Your task to perform on an android device: empty trash in the gmail app Image 0: 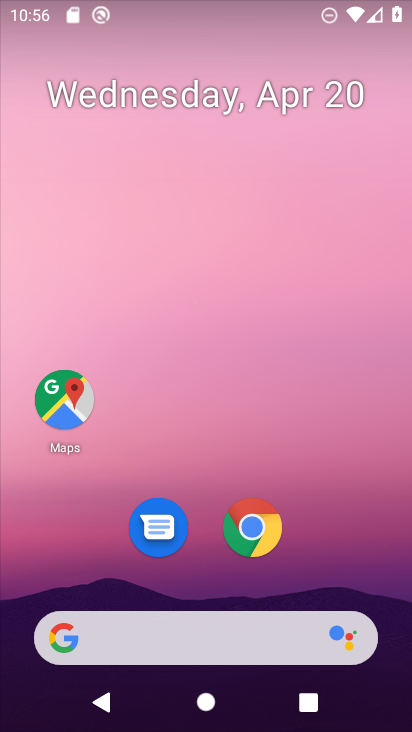
Step 0: drag from (187, 498) to (301, 2)
Your task to perform on an android device: empty trash in the gmail app Image 1: 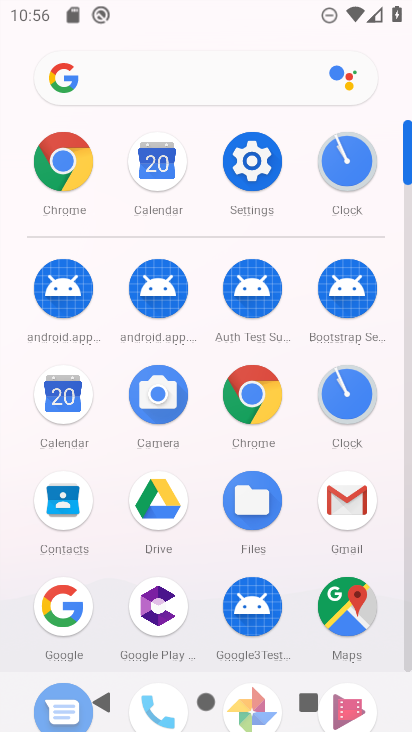
Step 1: click (346, 510)
Your task to perform on an android device: empty trash in the gmail app Image 2: 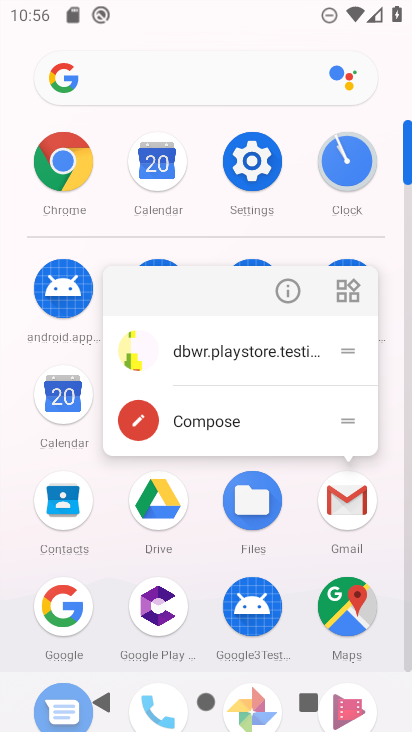
Step 2: click (347, 499)
Your task to perform on an android device: empty trash in the gmail app Image 3: 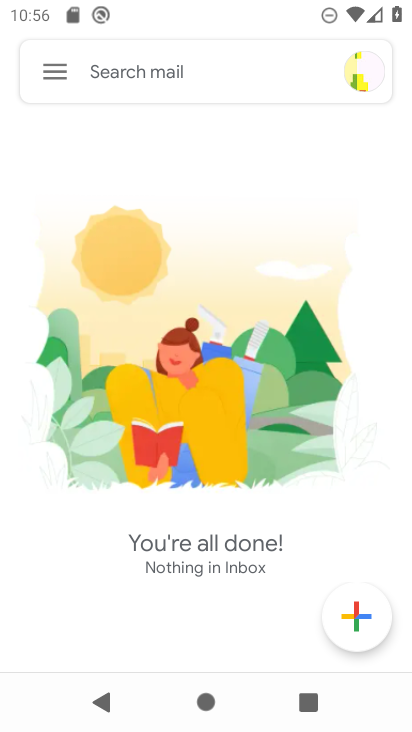
Step 3: click (47, 67)
Your task to perform on an android device: empty trash in the gmail app Image 4: 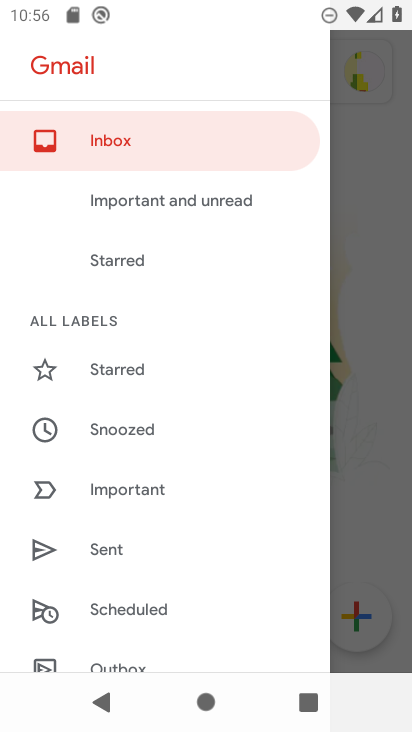
Step 4: drag from (142, 556) to (199, 4)
Your task to perform on an android device: empty trash in the gmail app Image 5: 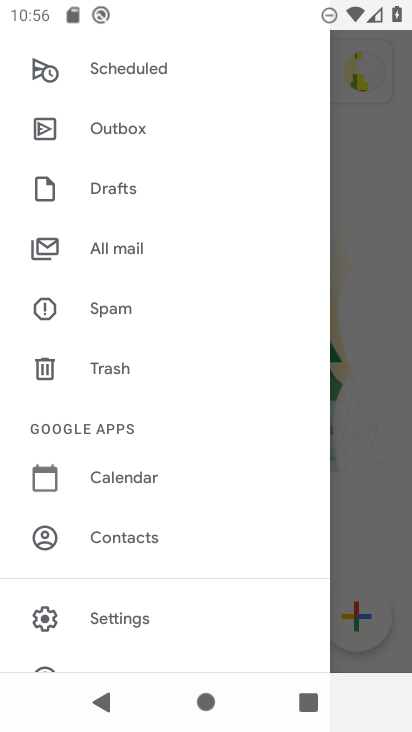
Step 5: click (124, 371)
Your task to perform on an android device: empty trash in the gmail app Image 6: 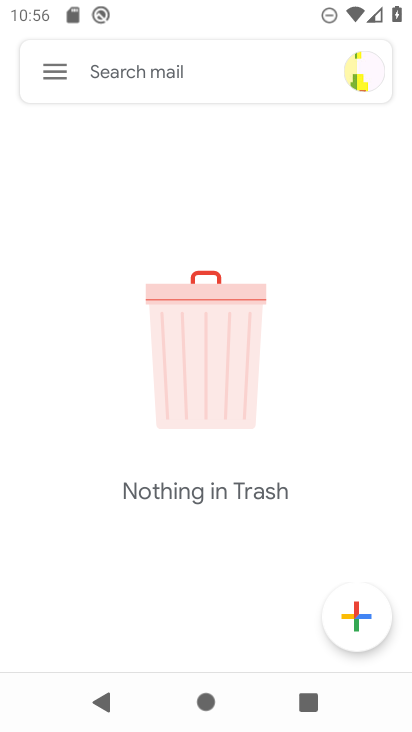
Step 6: task complete